Your task to perform on an android device: Go to privacy settings Image 0: 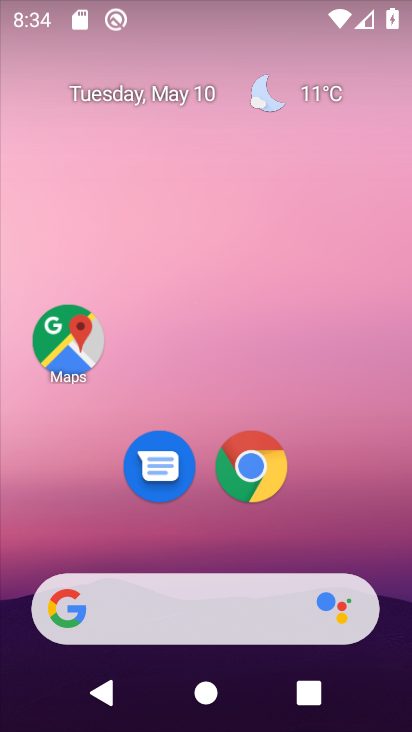
Step 0: drag from (210, 539) to (278, 28)
Your task to perform on an android device: Go to privacy settings Image 1: 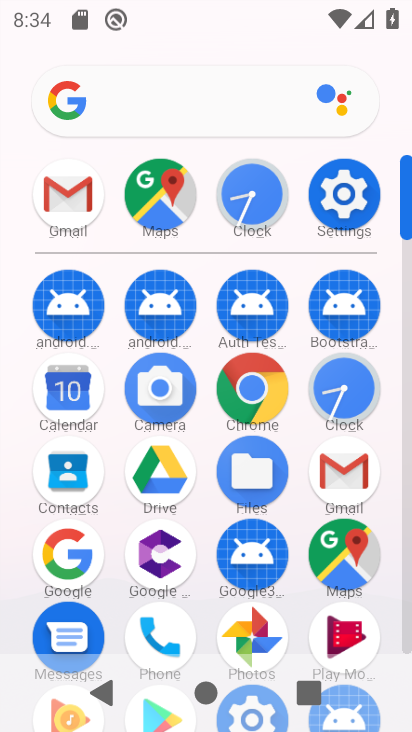
Step 1: click (335, 209)
Your task to perform on an android device: Go to privacy settings Image 2: 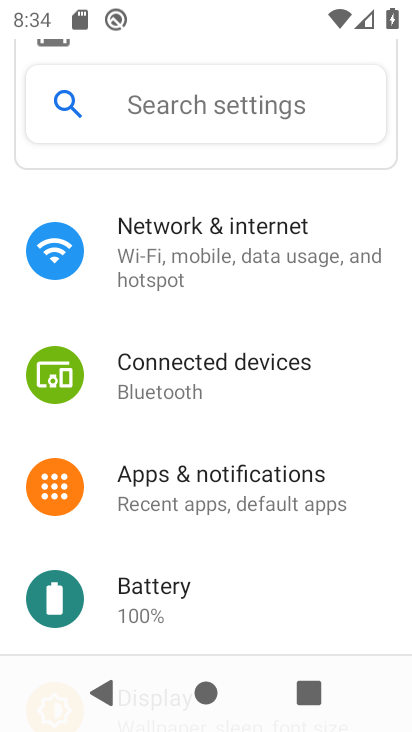
Step 2: drag from (208, 520) to (268, 193)
Your task to perform on an android device: Go to privacy settings Image 3: 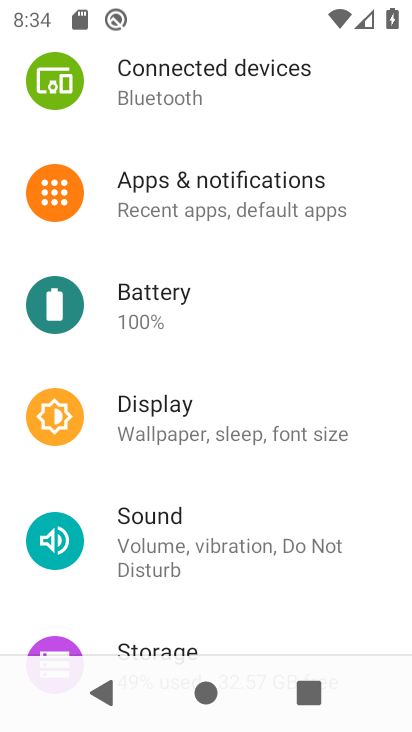
Step 3: drag from (212, 507) to (248, 119)
Your task to perform on an android device: Go to privacy settings Image 4: 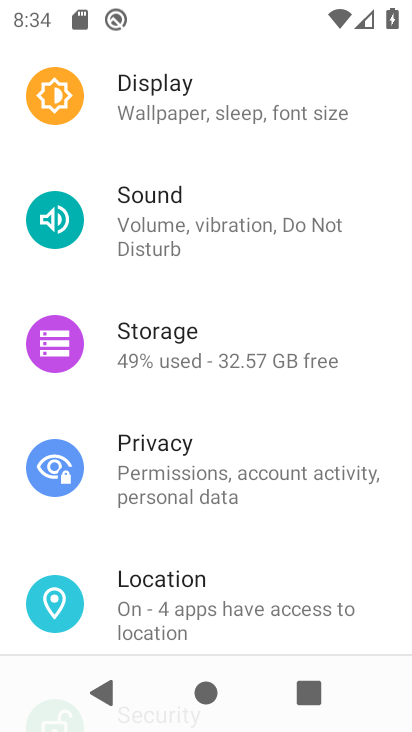
Step 4: click (181, 459)
Your task to perform on an android device: Go to privacy settings Image 5: 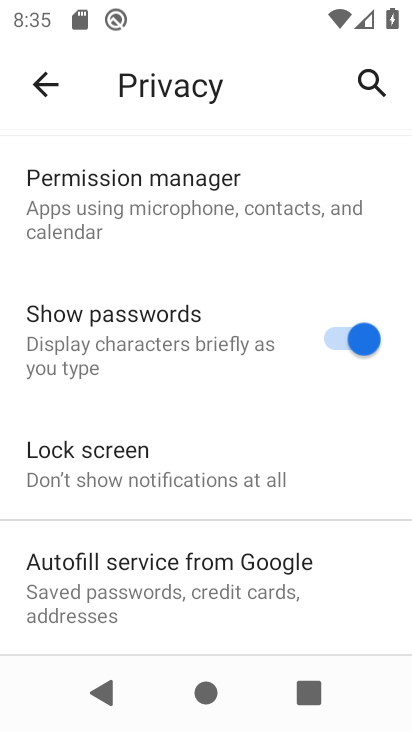
Step 5: task complete